Your task to perform on an android device: Open calendar and show me the first week of next month Image 0: 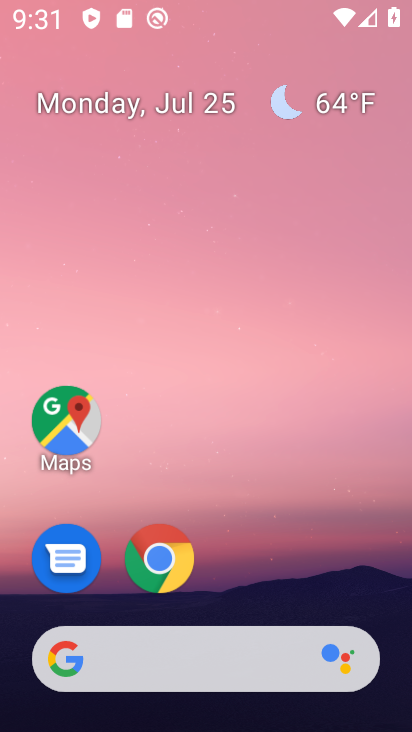
Step 0: press home button
Your task to perform on an android device: Open calendar and show me the first week of next month Image 1: 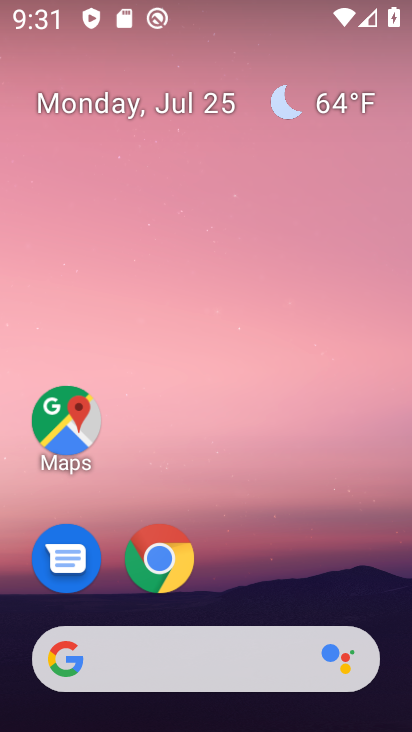
Step 1: drag from (339, 568) to (329, 126)
Your task to perform on an android device: Open calendar and show me the first week of next month Image 2: 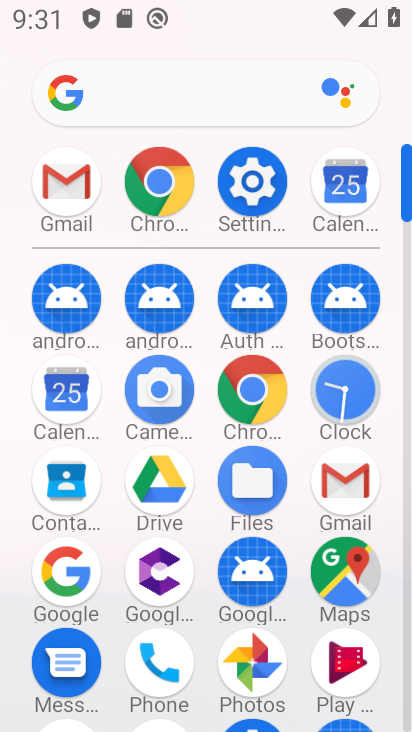
Step 2: click (359, 192)
Your task to perform on an android device: Open calendar and show me the first week of next month Image 3: 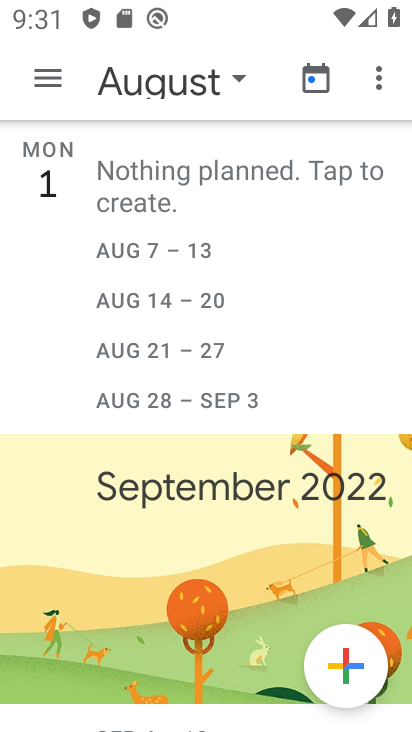
Step 3: click (237, 71)
Your task to perform on an android device: Open calendar and show me the first week of next month Image 4: 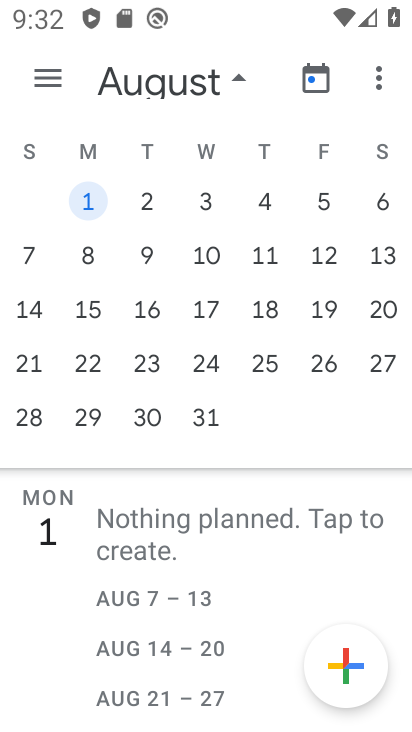
Step 4: task complete